Your task to perform on an android device: turn off javascript in the chrome app Image 0: 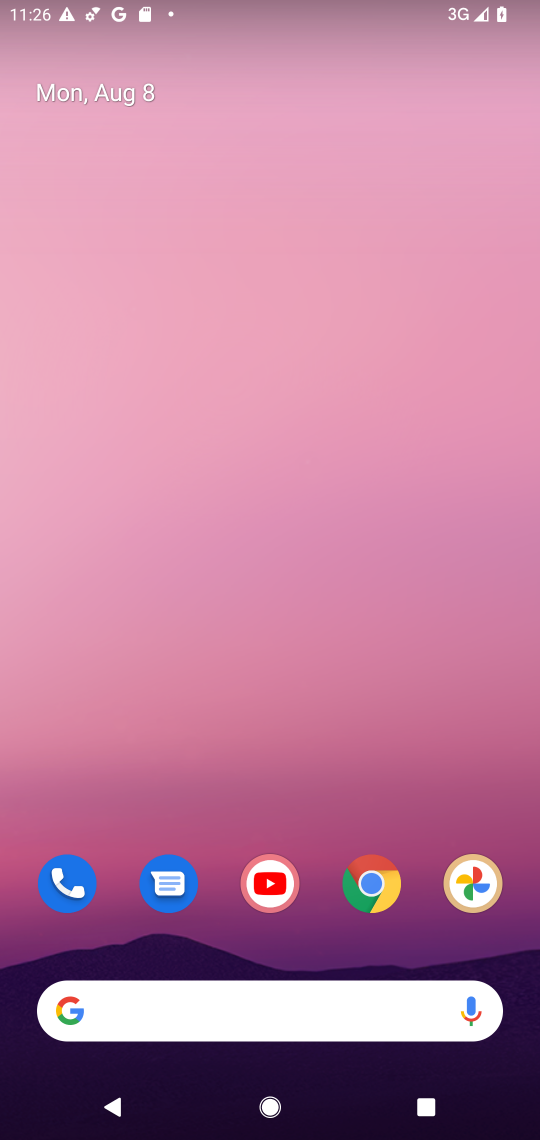
Step 0: press home button
Your task to perform on an android device: turn off javascript in the chrome app Image 1: 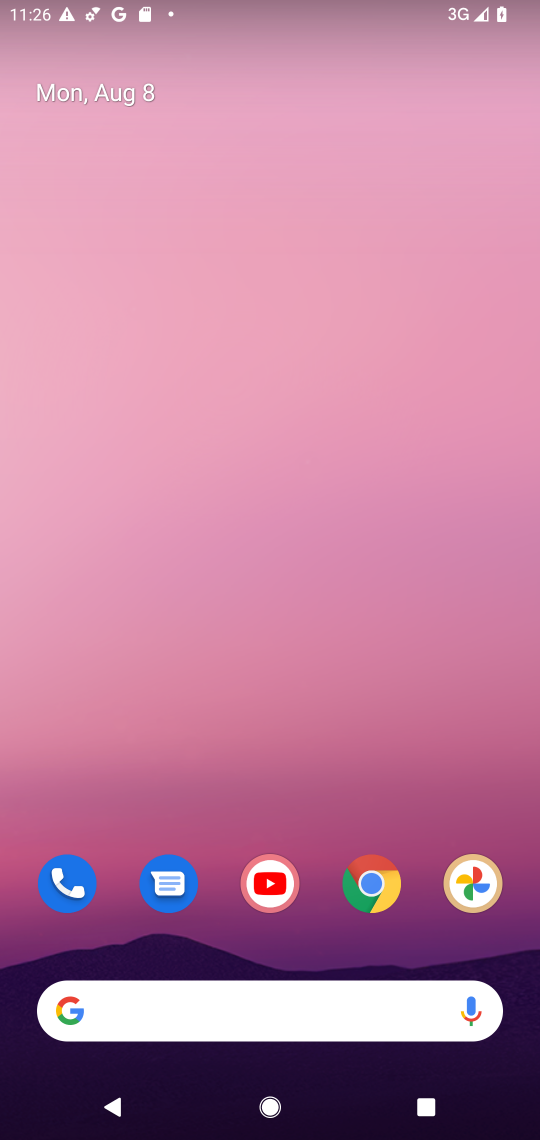
Step 1: press home button
Your task to perform on an android device: turn off javascript in the chrome app Image 2: 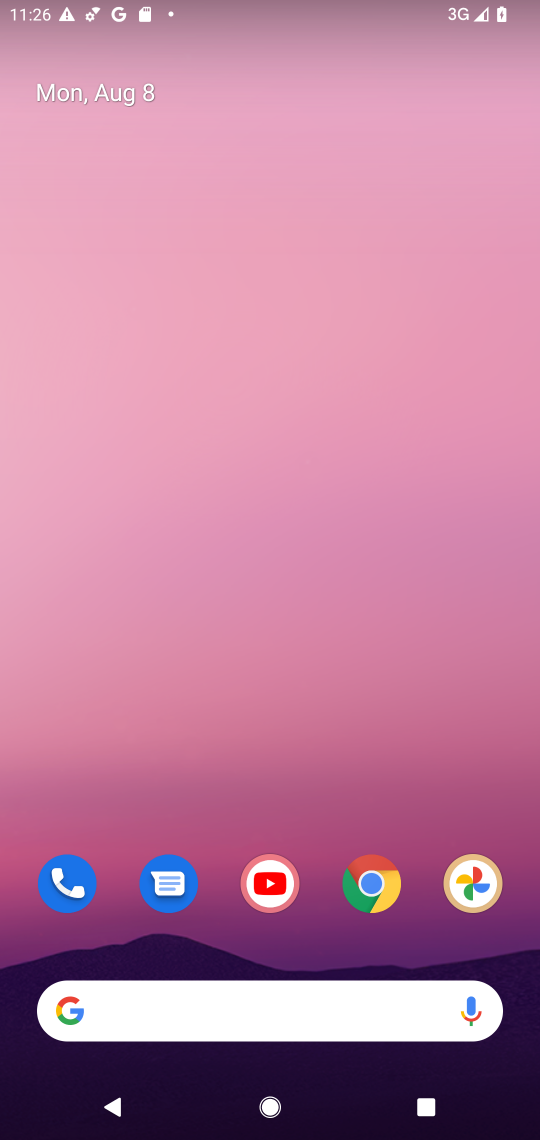
Step 2: press home button
Your task to perform on an android device: turn off javascript in the chrome app Image 3: 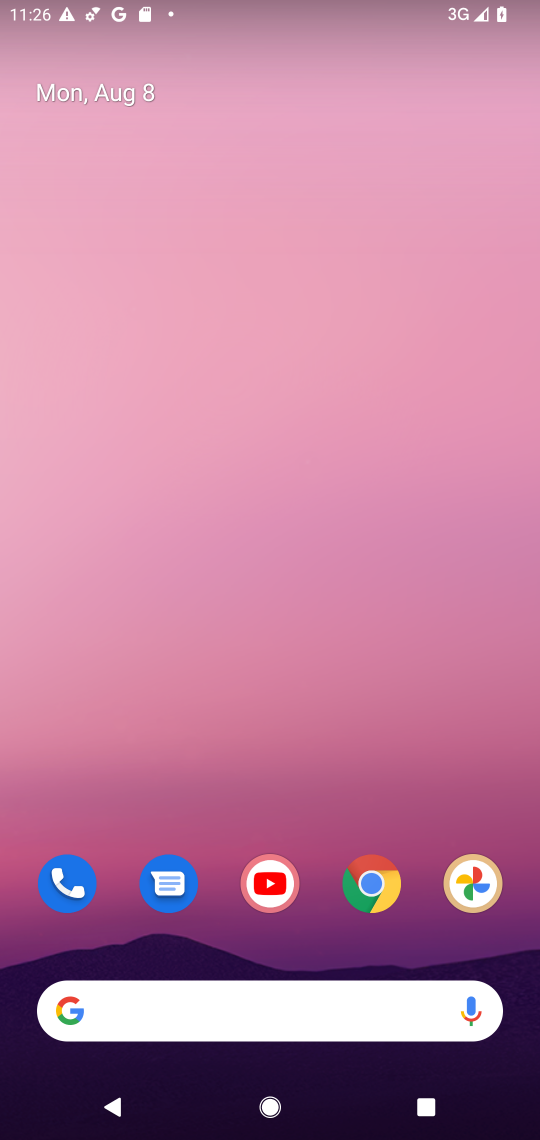
Step 3: drag from (309, 946) to (337, 53)
Your task to perform on an android device: turn off javascript in the chrome app Image 4: 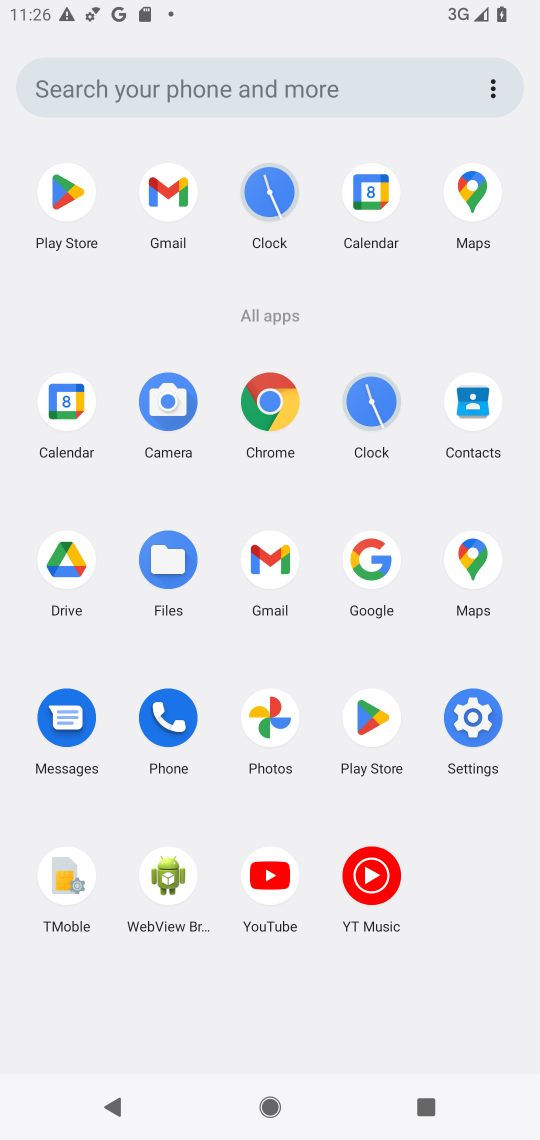
Step 4: click (265, 391)
Your task to perform on an android device: turn off javascript in the chrome app Image 5: 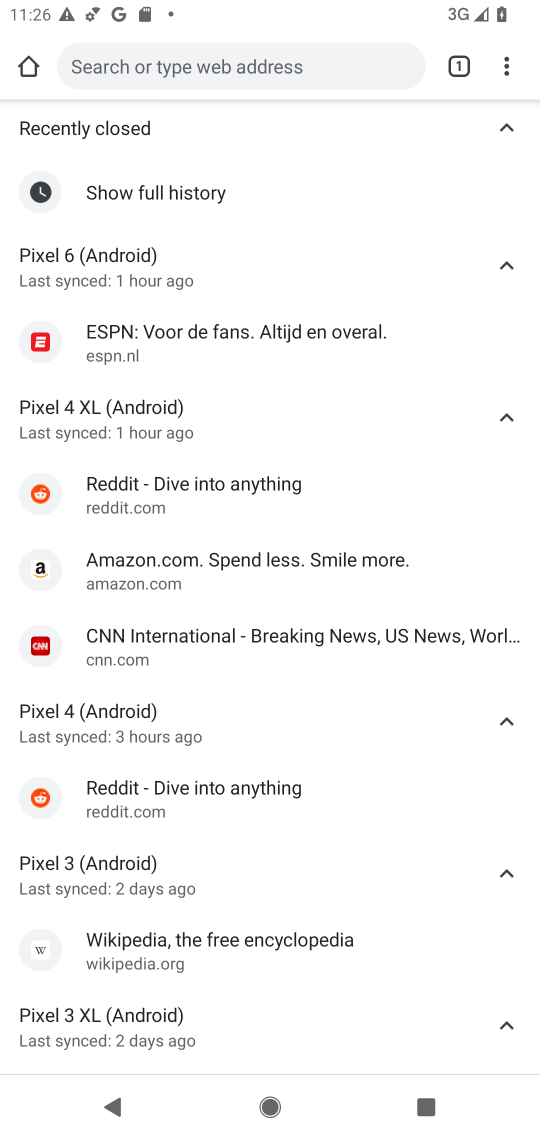
Step 5: click (512, 54)
Your task to perform on an android device: turn off javascript in the chrome app Image 6: 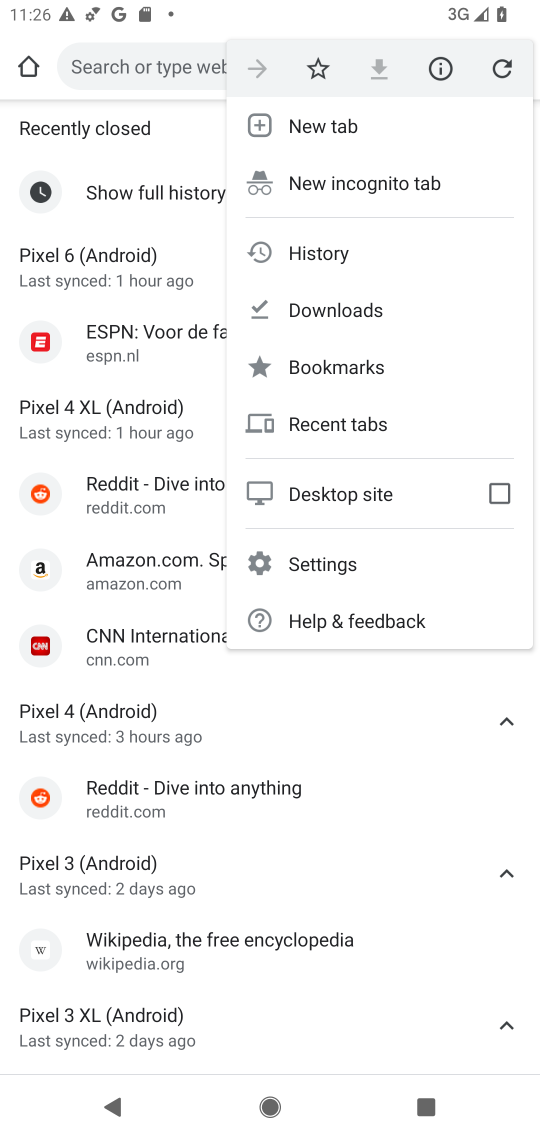
Step 6: click (367, 570)
Your task to perform on an android device: turn off javascript in the chrome app Image 7: 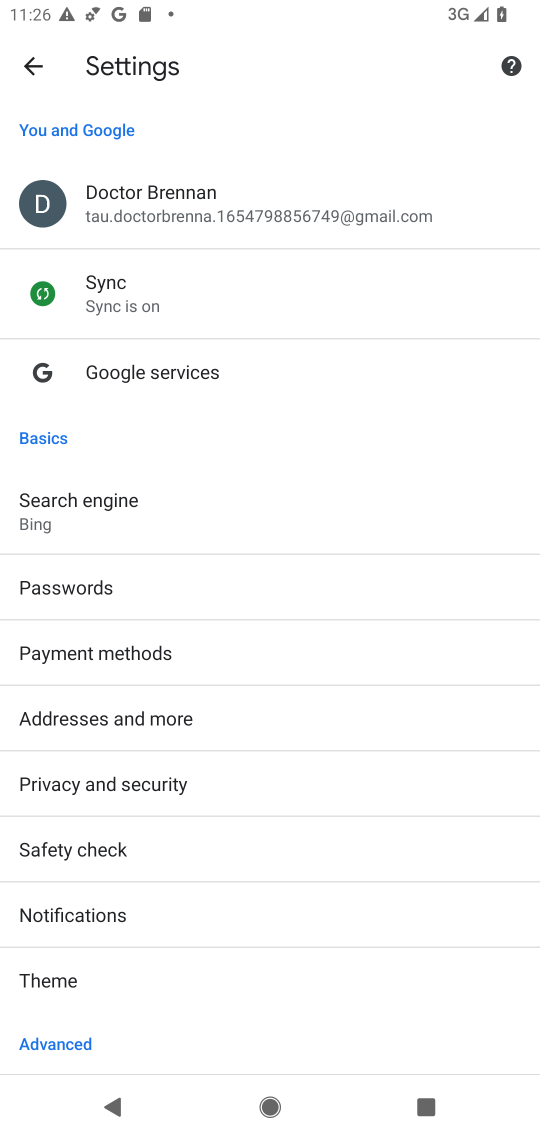
Step 7: drag from (234, 1032) to (283, 349)
Your task to perform on an android device: turn off javascript in the chrome app Image 8: 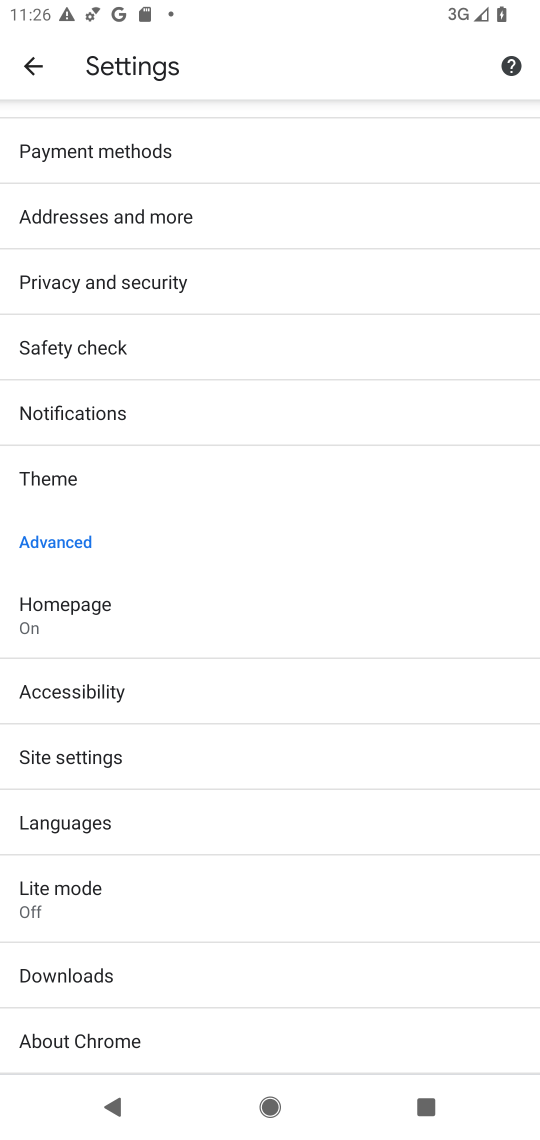
Step 8: drag from (179, 1000) to (217, 359)
Your task to perform on an android device: turn off javascript in the chrome app Image 9: 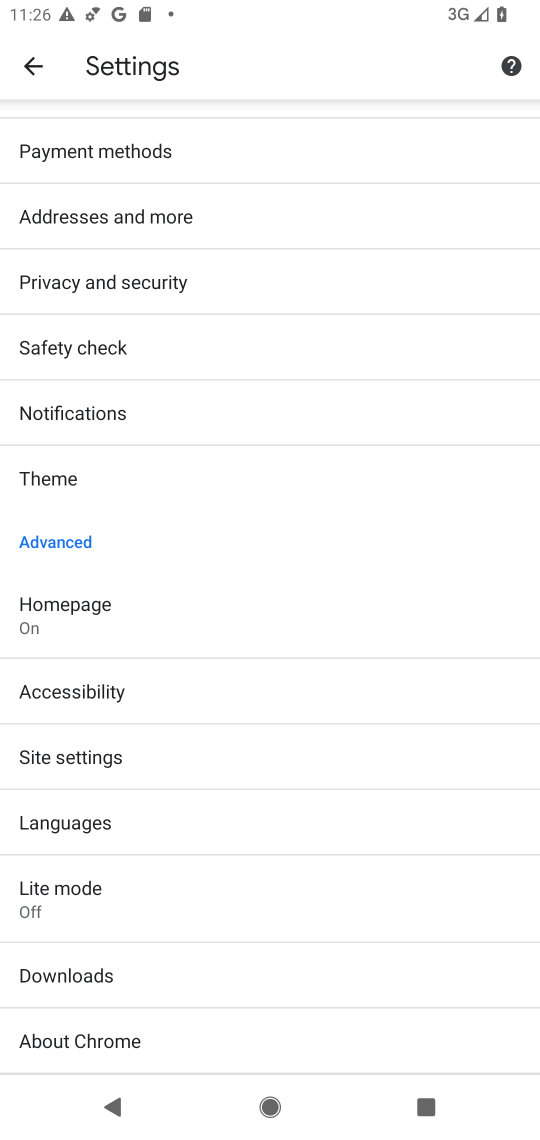
Step 9: click (147, 762)
Your task to perform on an android device: turn off javascript in the chrome app Image 10: 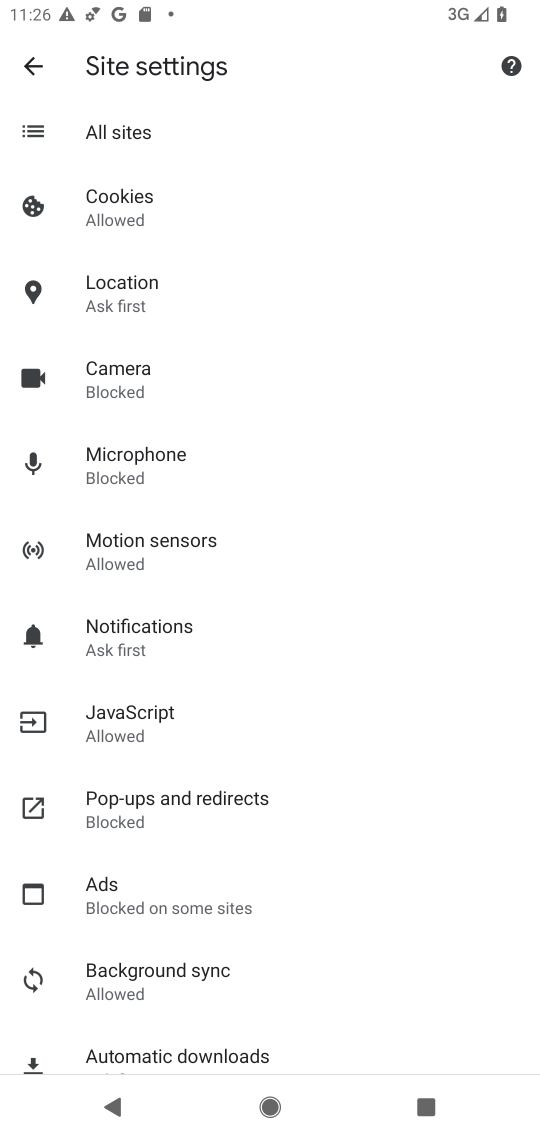
Step 10: click (162, 720)
Your task to perform on an android device: turn off javascript in the chrome app Image 11: 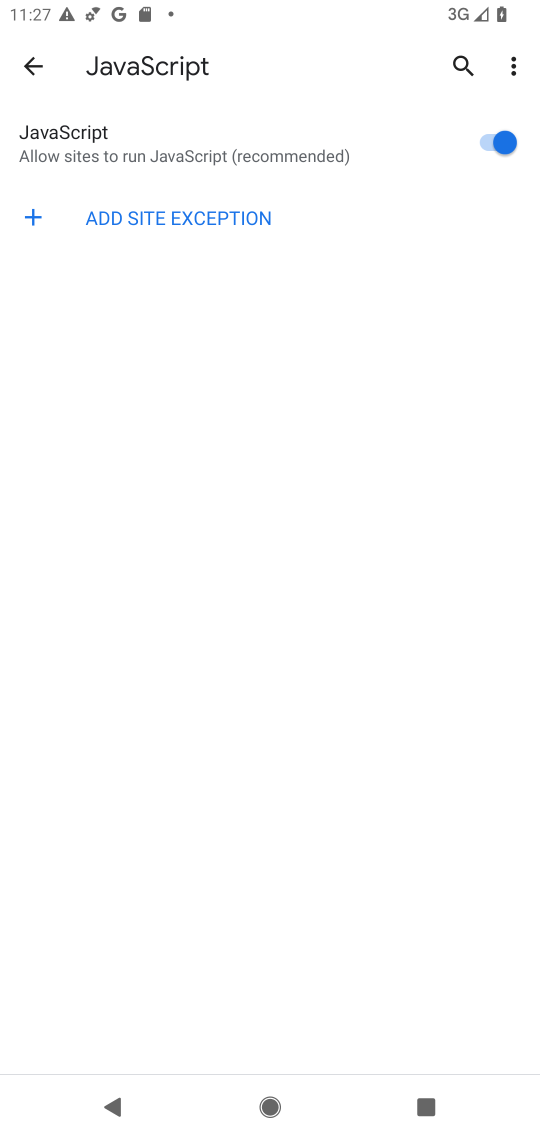
Step 11: click (477, 139)
Your task to perform on an android device: turn off javascript in the chrome app Image 12: 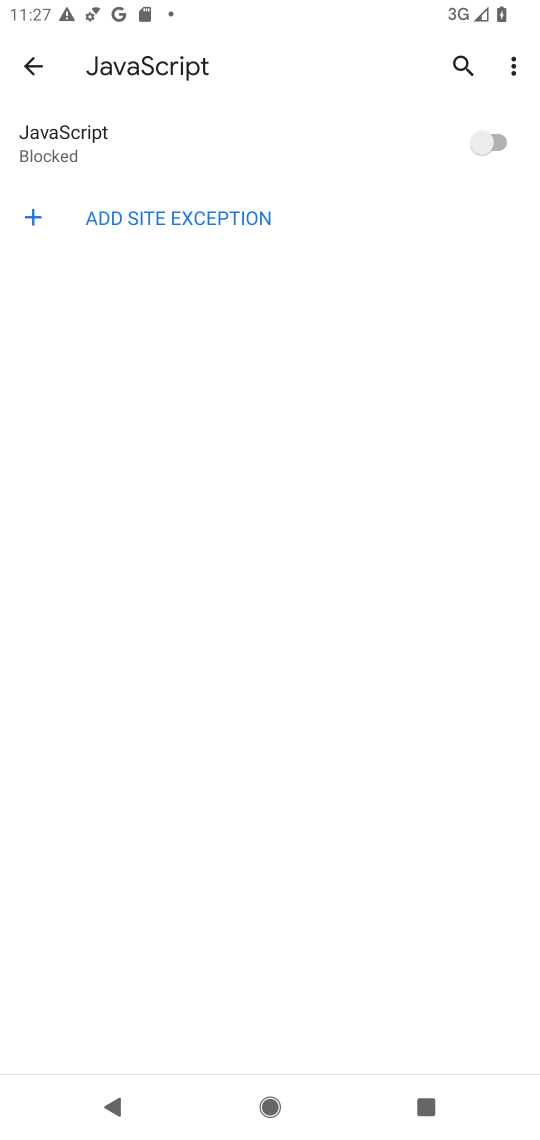
Step 12: task complete